Your task to perform on an android device: Open calendar and show me the third week of next month Image 0: 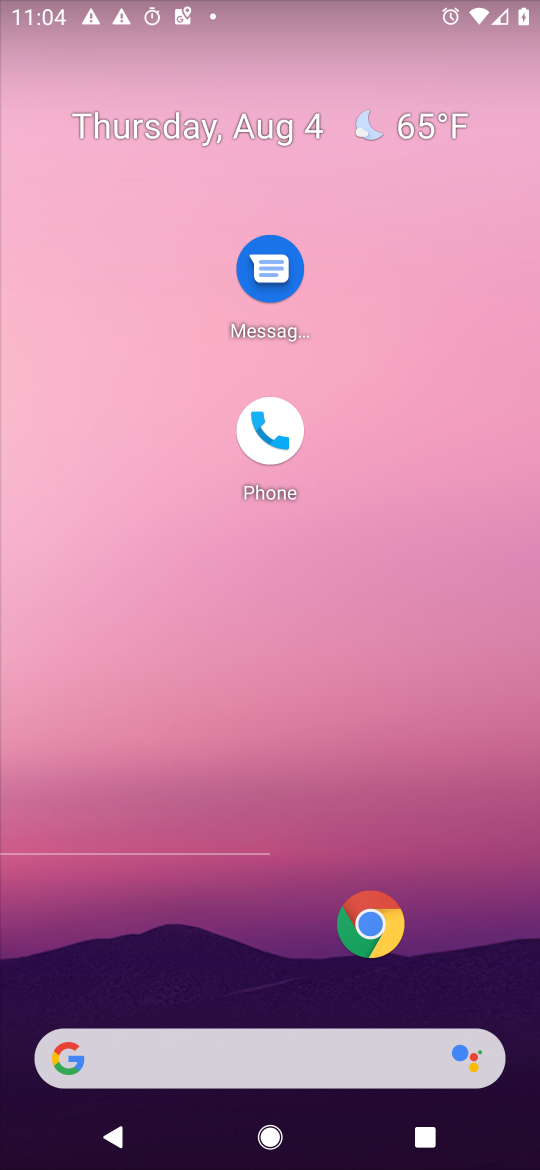
Step 0: drag from (317, 905) to (434, 118)
Your task to perform on an android device: Open calendar and show me the third week of next month Image 1: 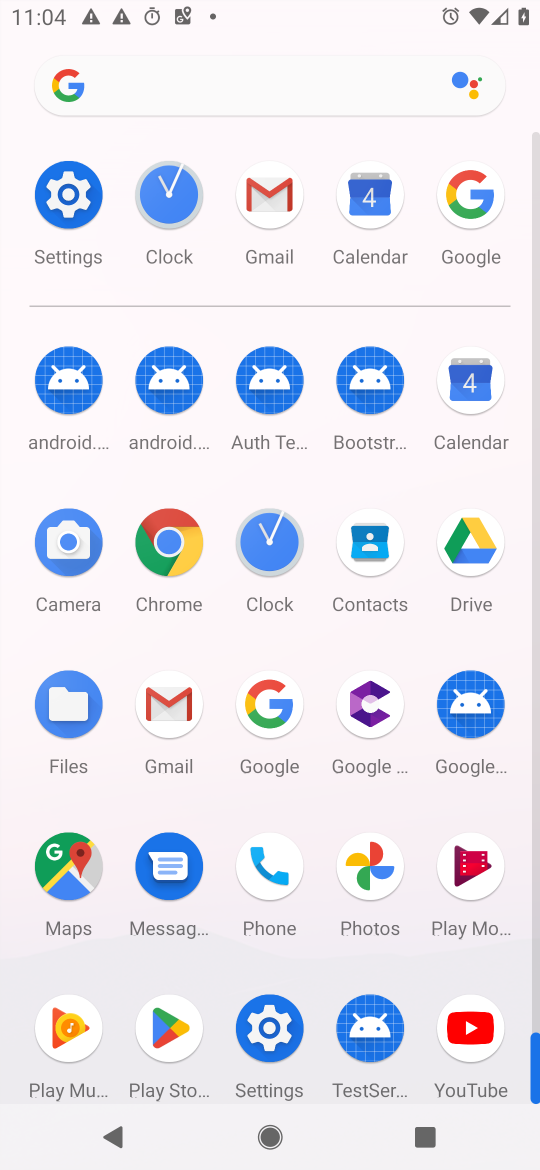
Step 1: click (461, 372)
Your task to perform on an android device: Open calendar and show me the third week of next month Image 2: 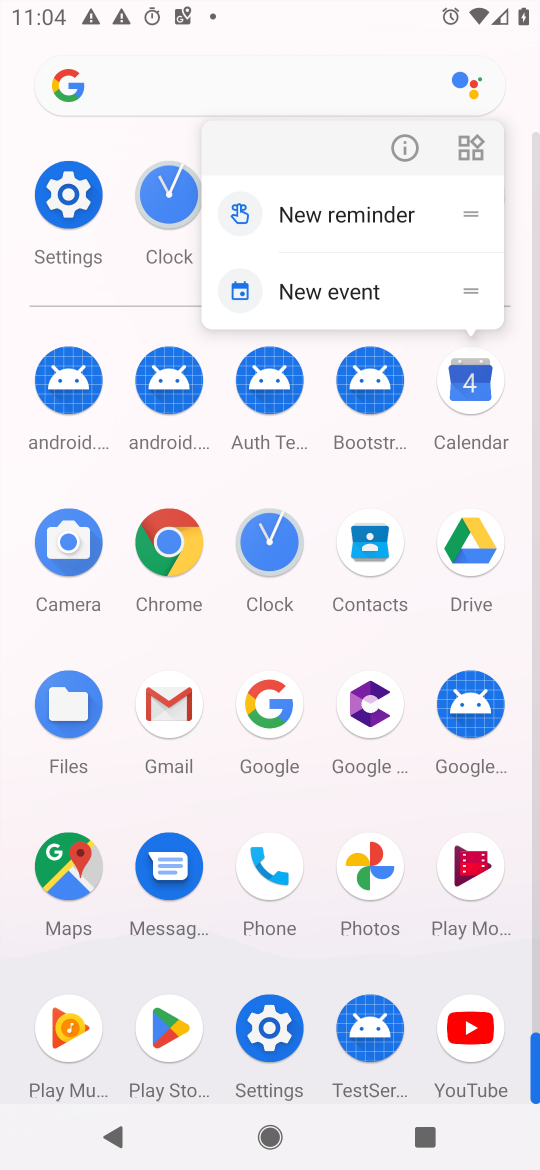
Step 2: click (408, 137)
Your task to perform on an android device: Open calendar and show me the third week of next month Image 3: 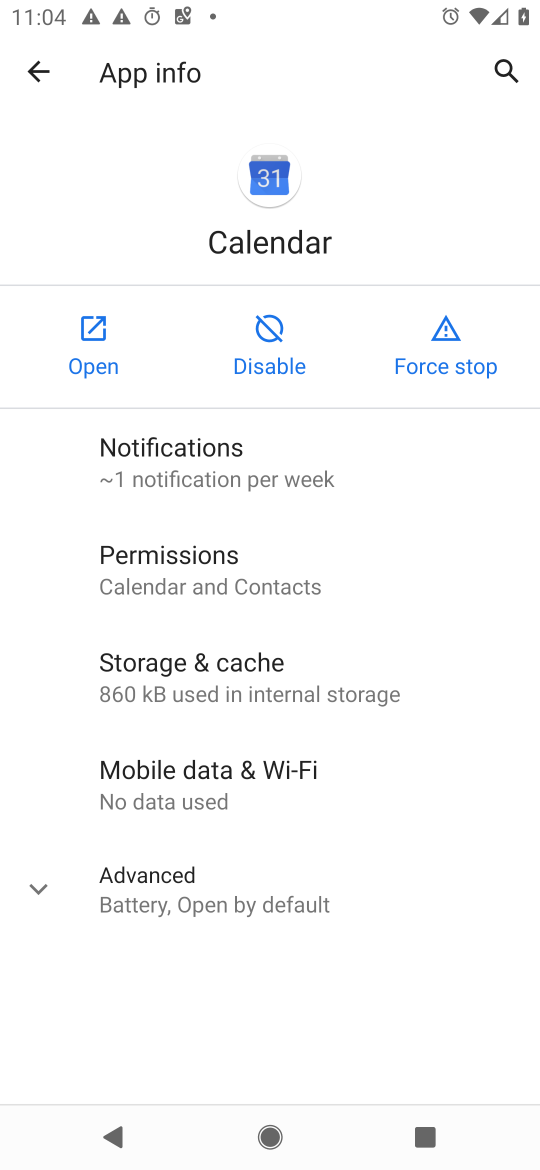
Step 3: click (83, 333)
Your task to perform on an android device: Open calendar and show me the third week of next month Image 4: 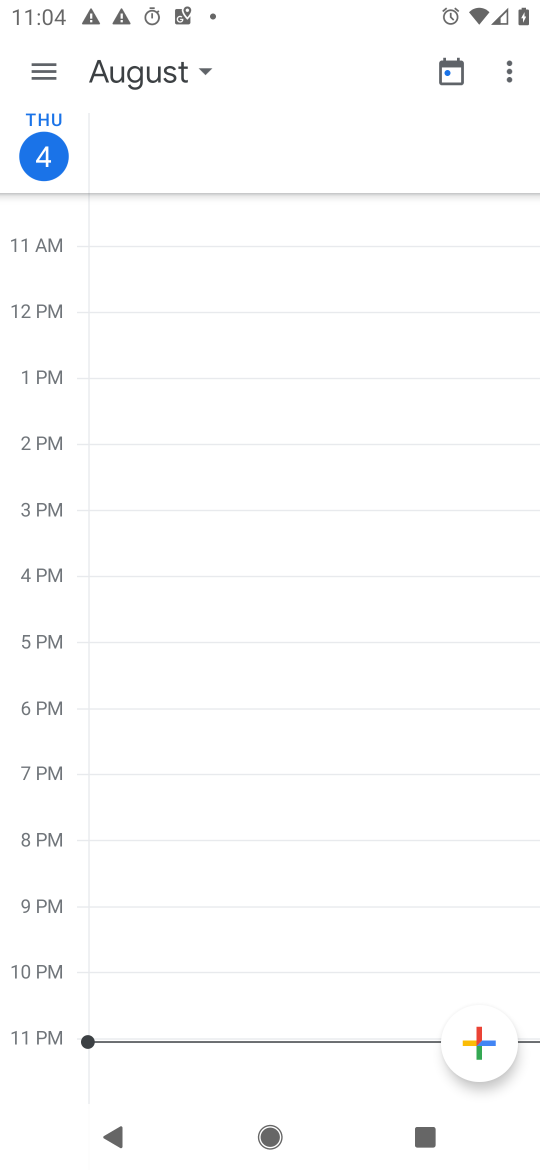
Step 4: click (279, 431)
Your task to perform on an android device: Open calendar and show me the third week of next month Image 5: 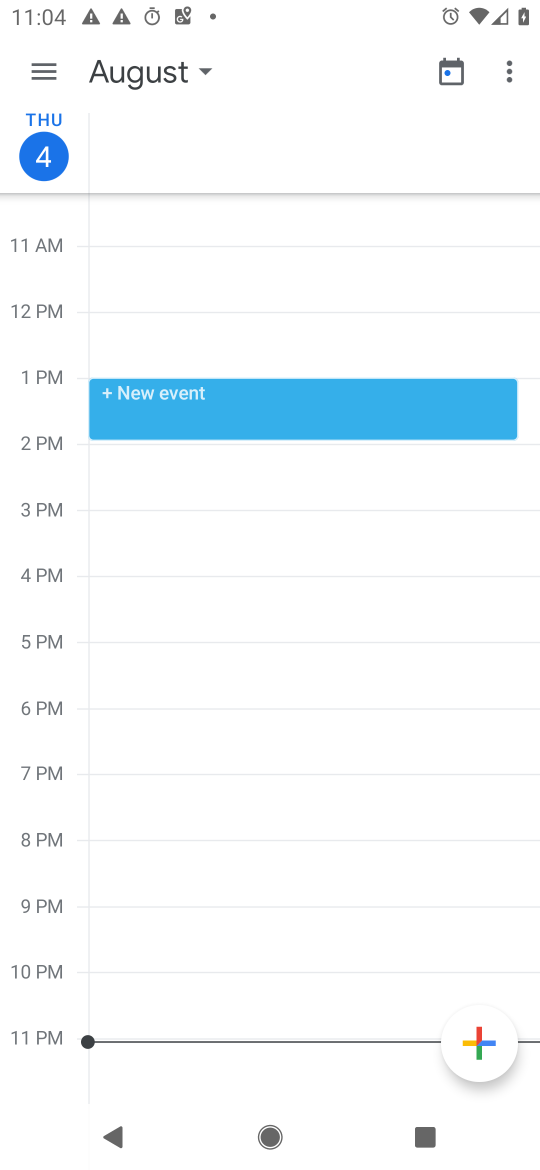
Step 5: click (444, 76)
Your task to perform on an android device: Open calendar and show me the third week of next month Image 6: 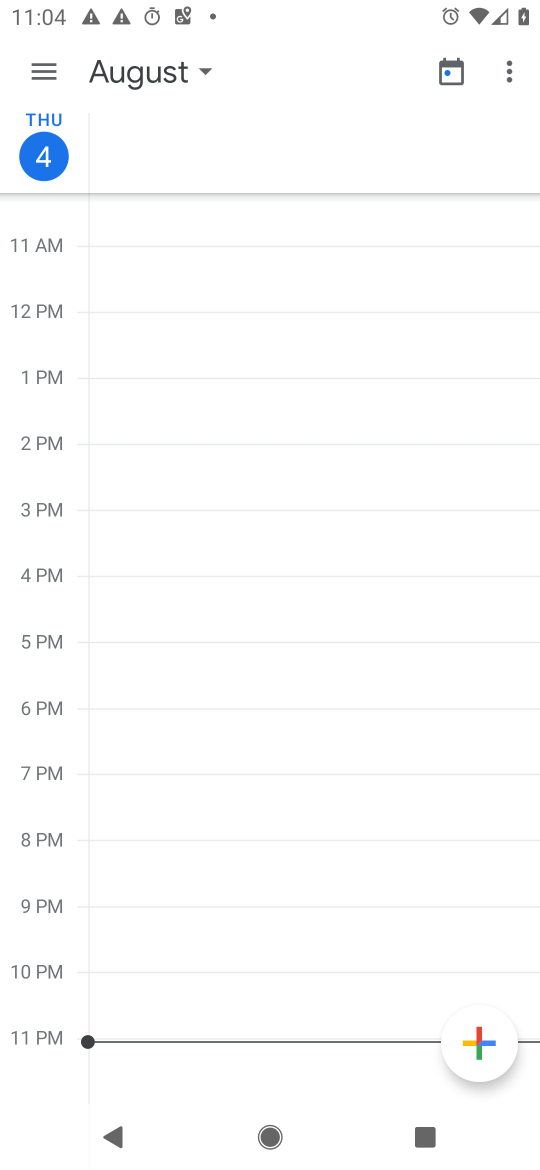
Step 6: click (169, 69)
Your task to perform on an android device: Open calendar and show me the third week of next month Image 7: 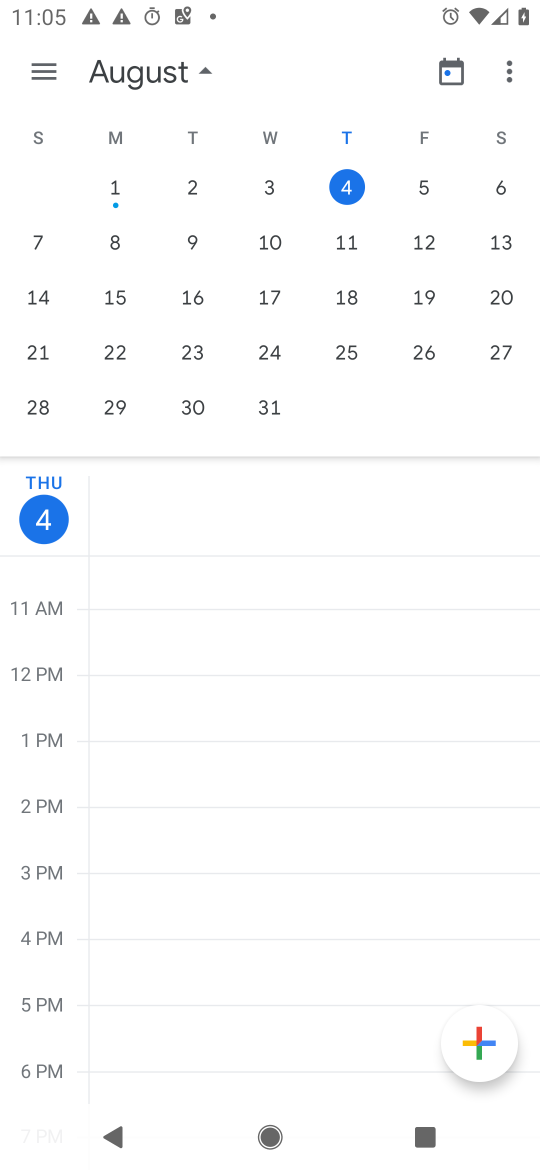
Step 7: click (355, 295)
Your task to perform on an android device: Open calendar and show me the third week of next month Image 8: 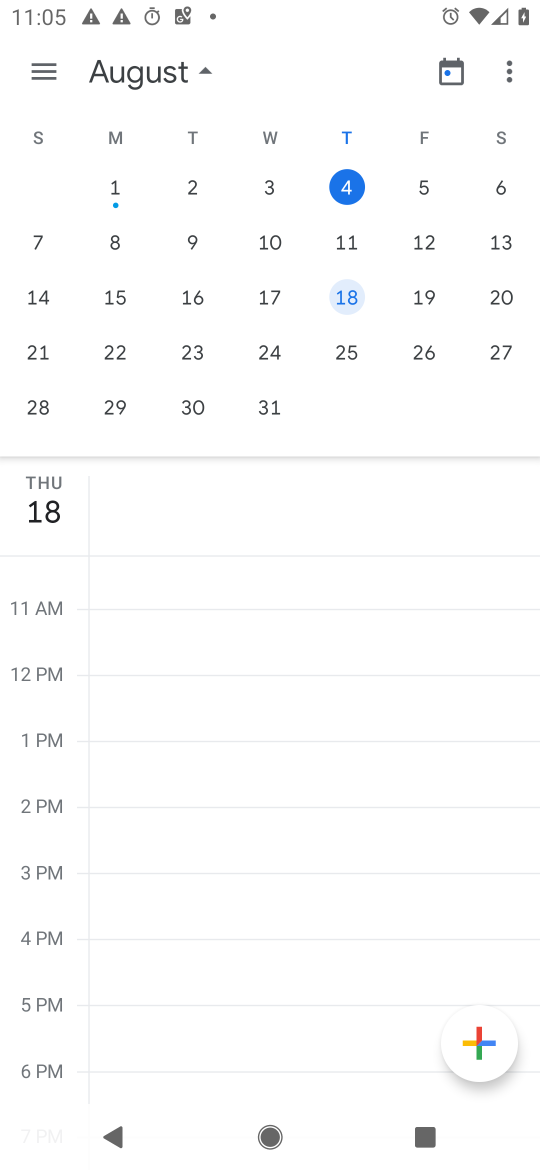
Step 8: drag from (442, 264) to (30, 297)
Your task to perform on an android device: Open calendar and show me the third week of next month Image 9: 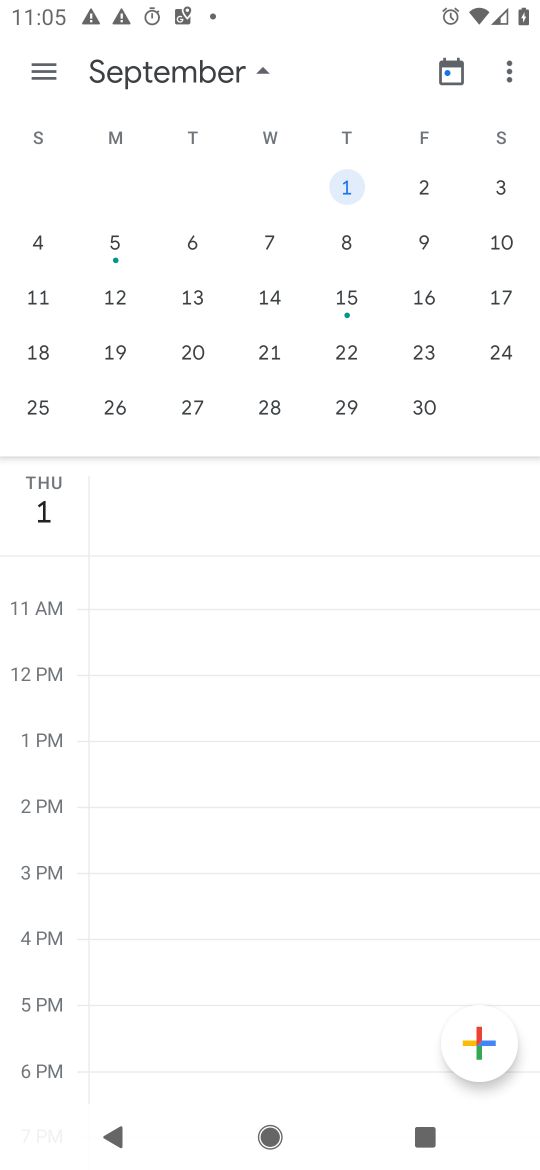
Step 9: click (415, 296)
Your task to perform on an android device: Open calendar and show me the third week of next month Image 10: 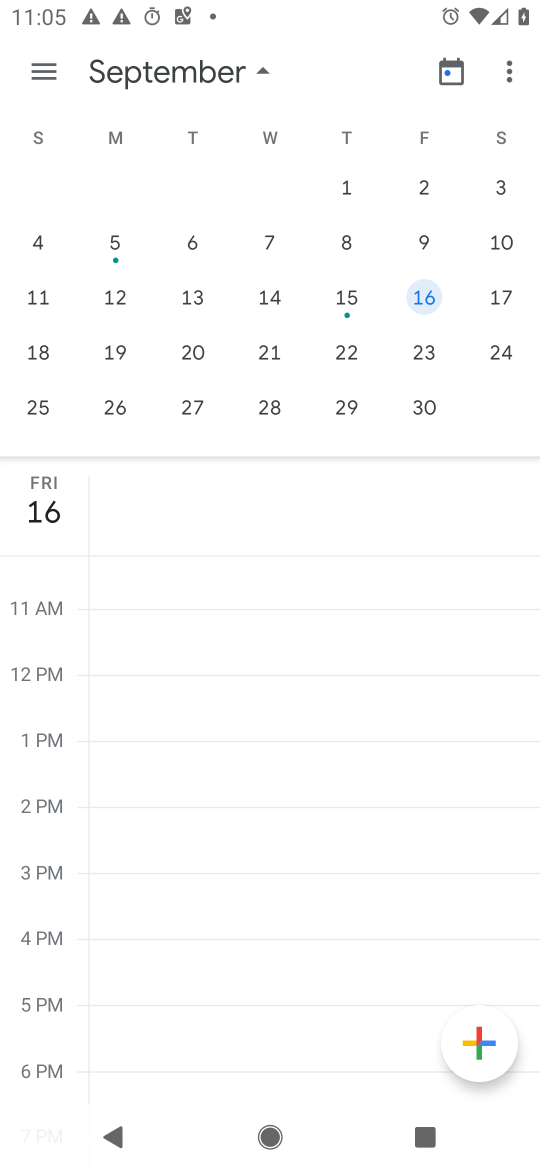
Step 10: click (336, 286)
Your task to perform on an android device: Open calendar and show me the third week of next month Image 11: 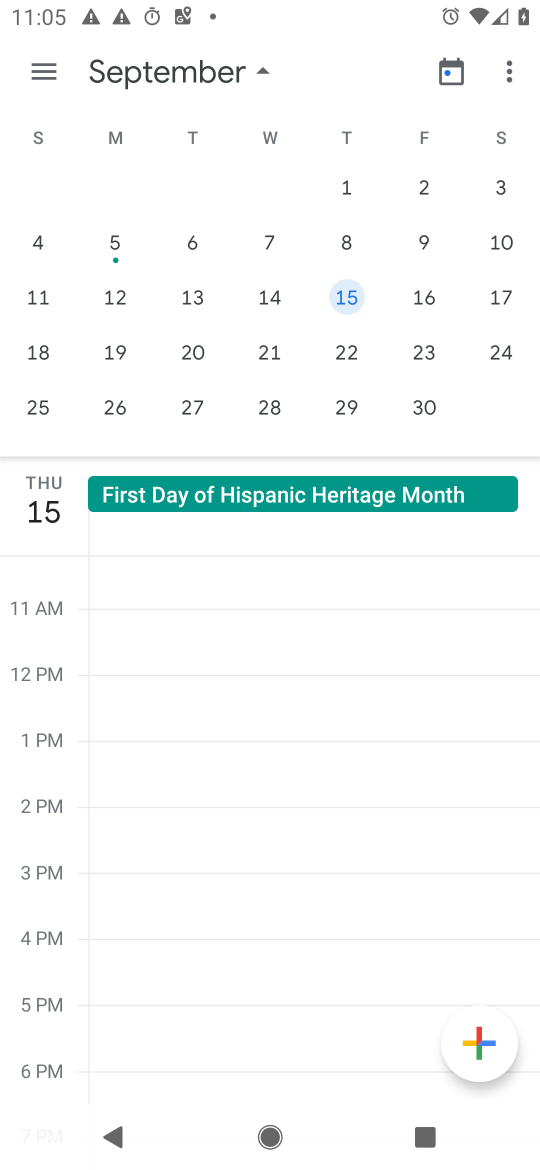
Step 11: task complete